Your task to perform on an android device: Show me recent news Image 0: 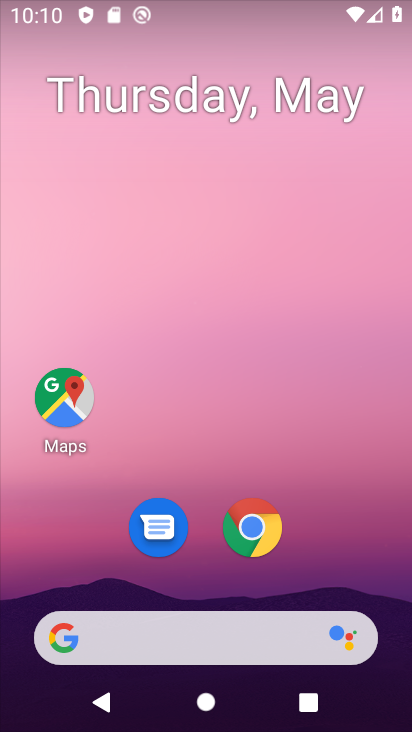
Step 0: click (210, 638)
Your task to perform on an android device: Show me recent news Image 1: 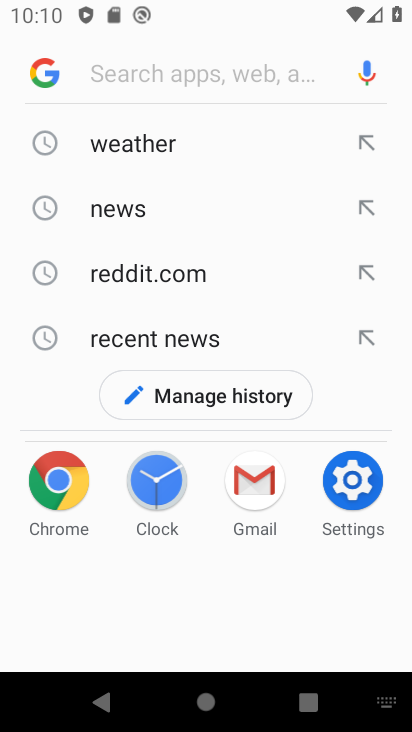
Step 1: click (174, 74)
Your task to perform on an android device: Show me recent news Image 2: 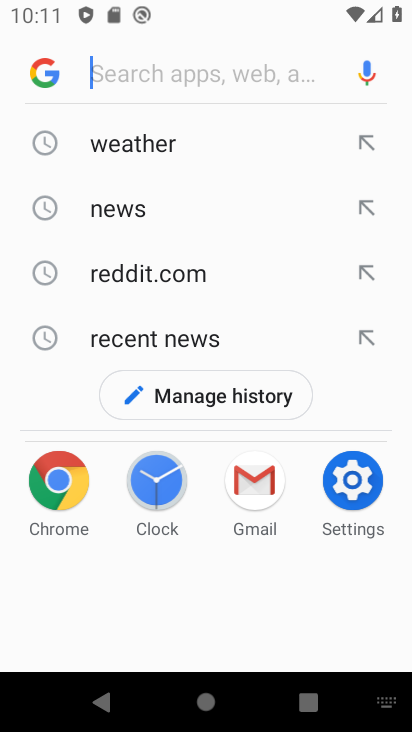
Step 2: type "recent news"
Your task to perform on an android device: Show me recent news Image 3: 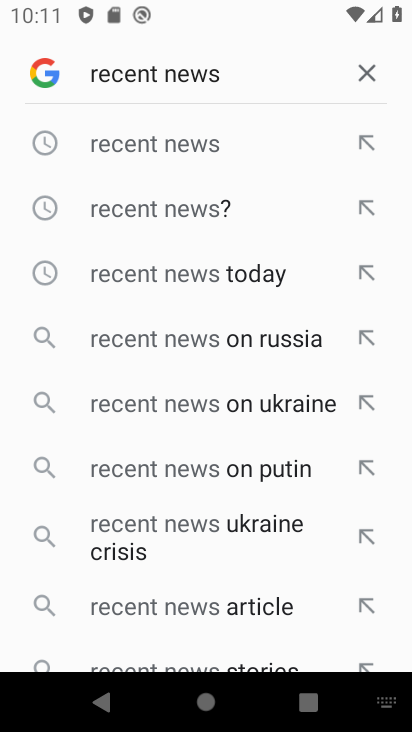
Step 3: type "x"
Your task to perform on an android device: Show me recent news Image 4: 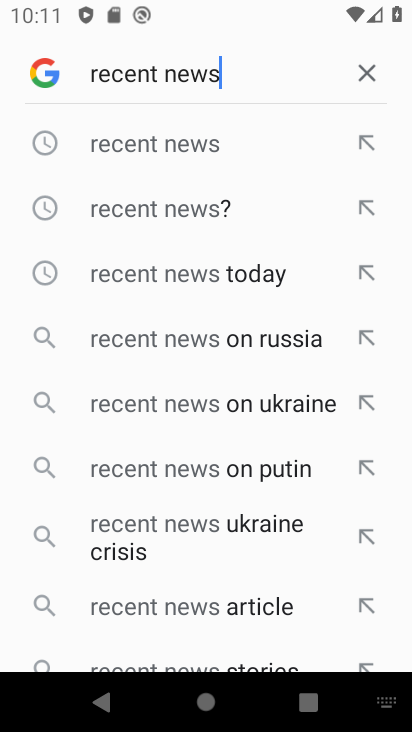
Step 4: click (178, 141)
Your task to perform on an android device: Show me recent news Image 5: 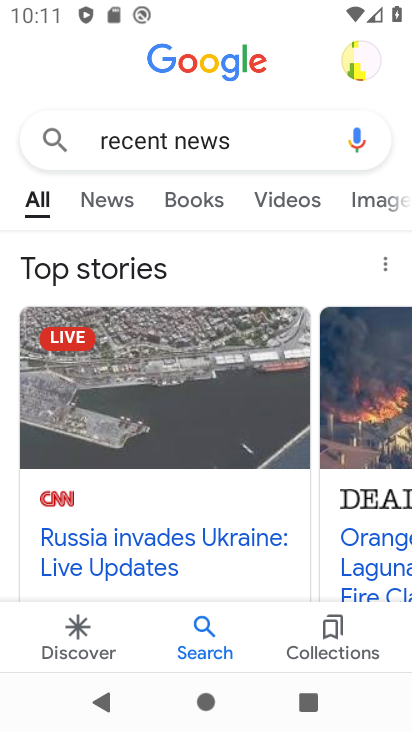
Step 5: task complete